Your task to perform on an android device: toggle notifications settings in the gmail app Image 0: 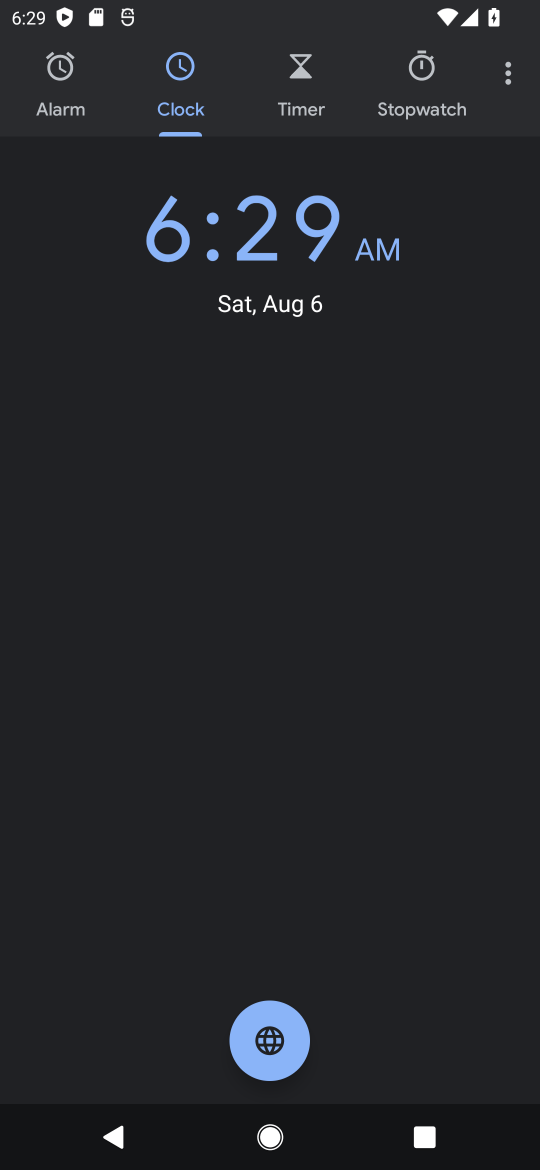
Step 0: press home button
Your task to perform on an android device: toggle notifications settings in the gmail app Image 1: 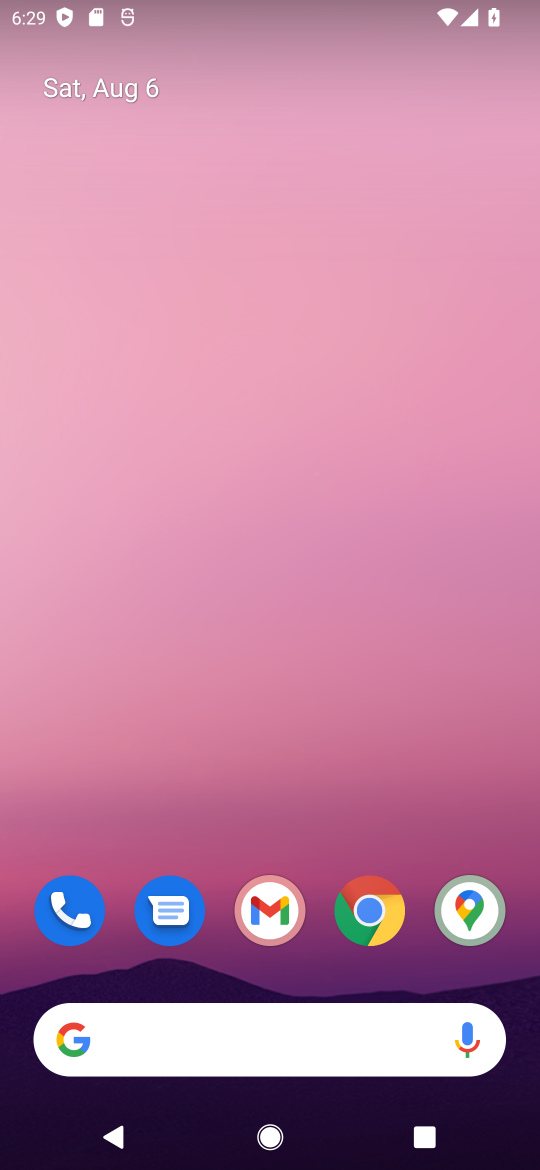
Step 1: click (273, 893)
Your task to perform on an android device: toggle notifications settings in the gmail app Image 2: 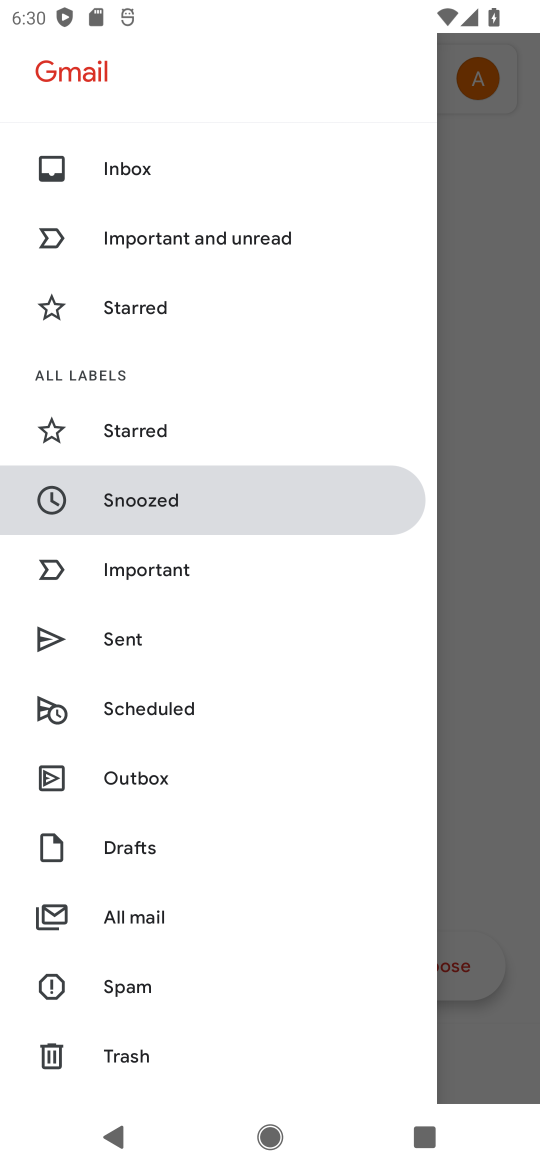
Step 2: drag from (303, 996) to (203, 386)
Your task to perform on an android device: toggle notifications settings in the gmail app Image 3: 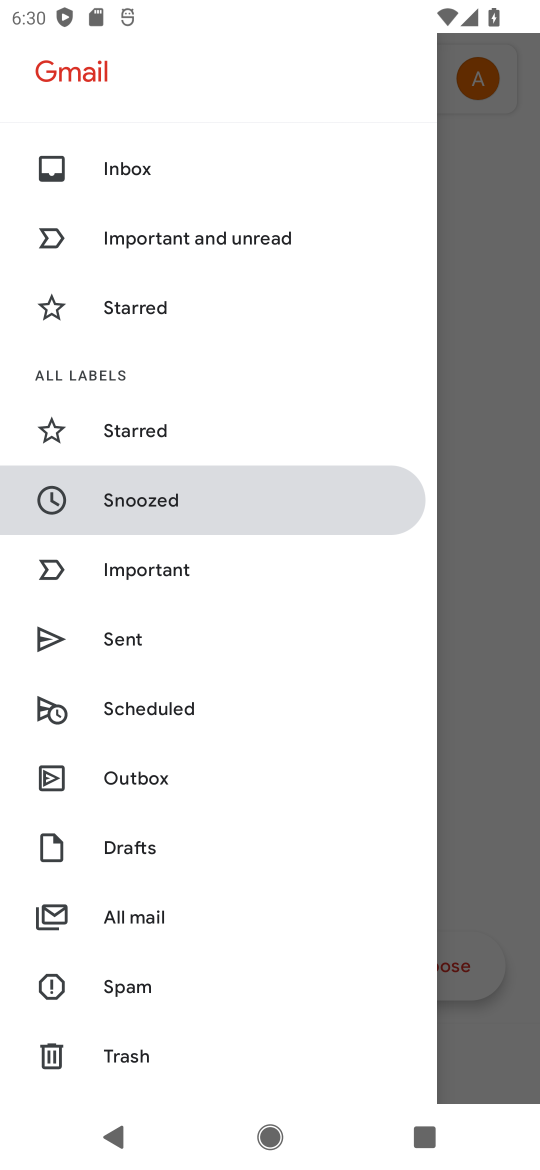
Step 3: drag from (190, 1030) to (215, 288)
Your task to perform on an android device: toggle notifications settings in the gmail app Image 4: 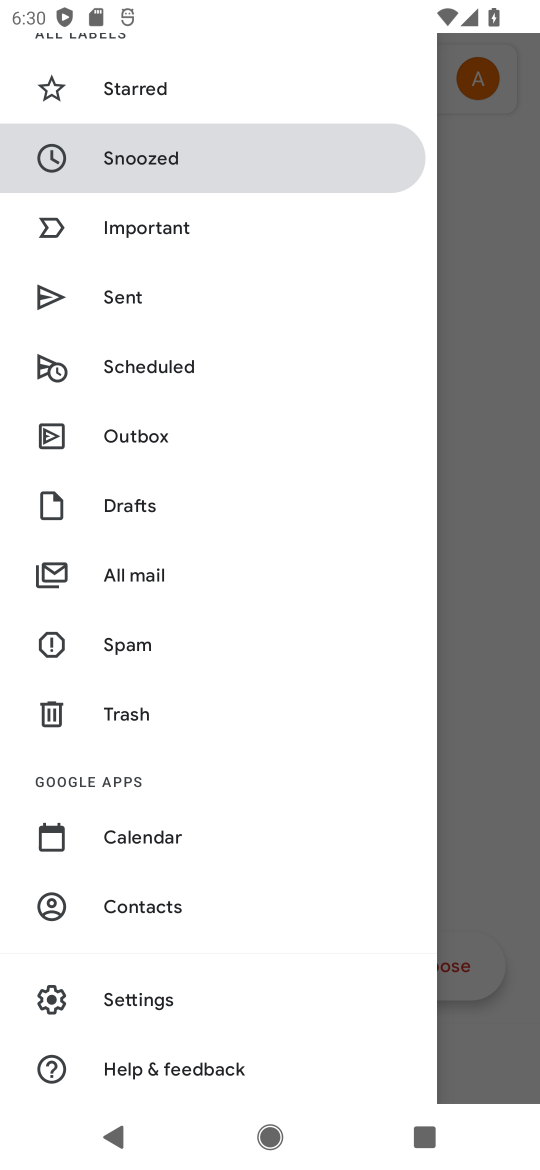
Step 4: click (151, 986)
Your task to perform on an android device: toggle notifications settings in the gmail app Image 5: 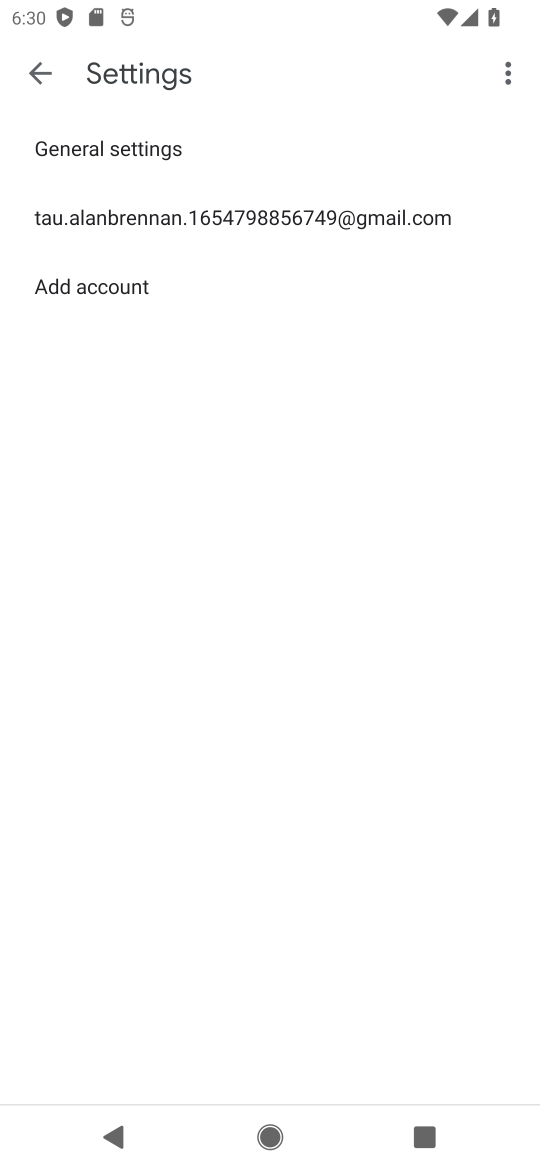
Step 5: click (112, 223)
Your task to perform on an android device: toggle notifications settings in the gmail app Image 6: 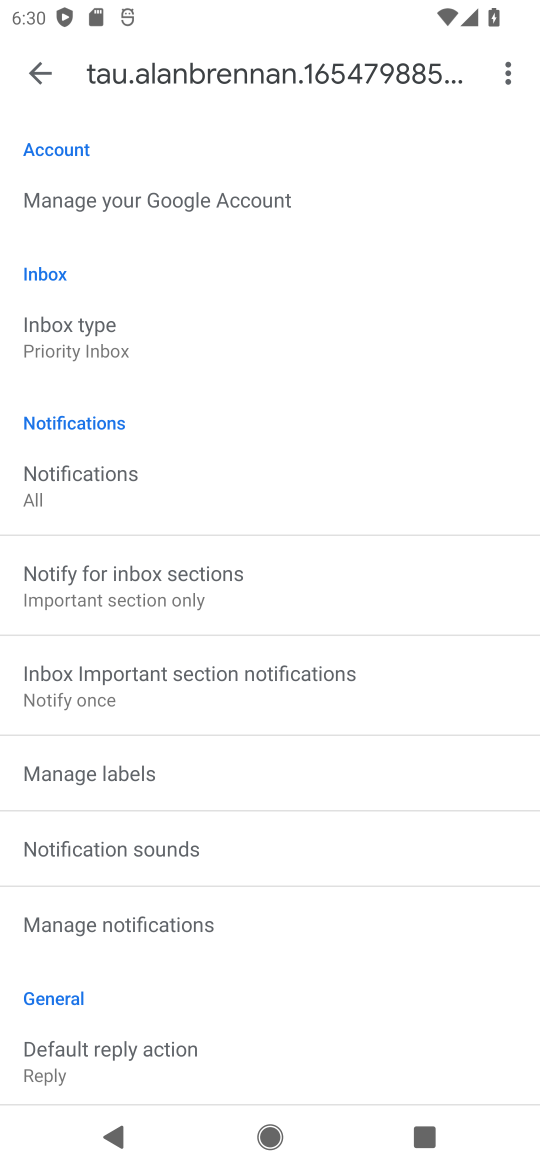
Step 6: click (152, 469)
Your task to perform on an android device: toggle notifications settings in the gmail app Image 7: 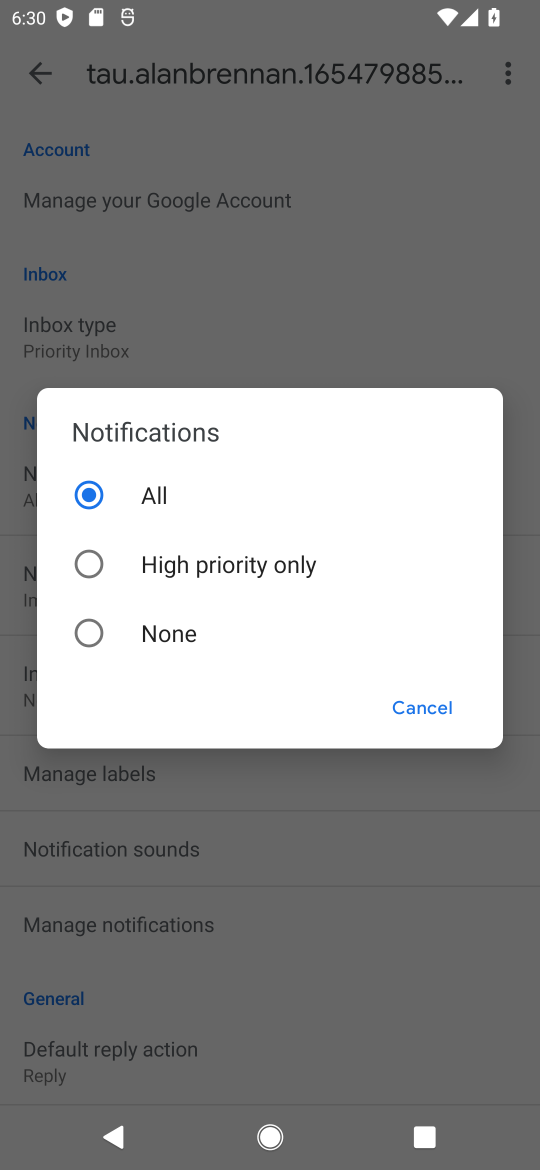
Step 7: click (151, 564)
Your task to perform on an android device: toggle notifications settings in the gmail app Image 8: 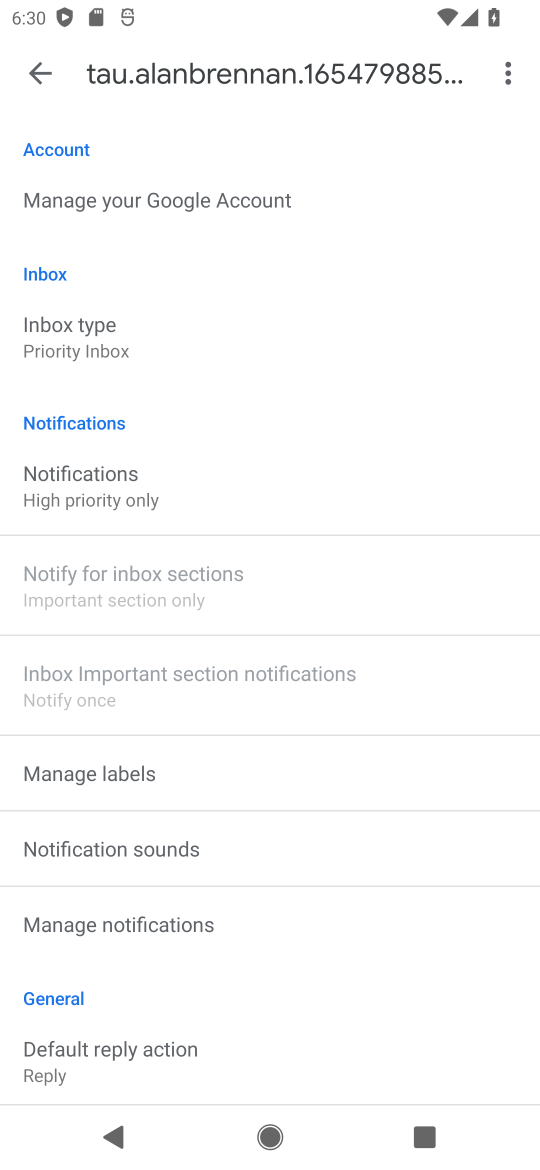
Step 8: task complete